Your task to perform on an android device: Clear all items from cart on newegg.com. Image 0: 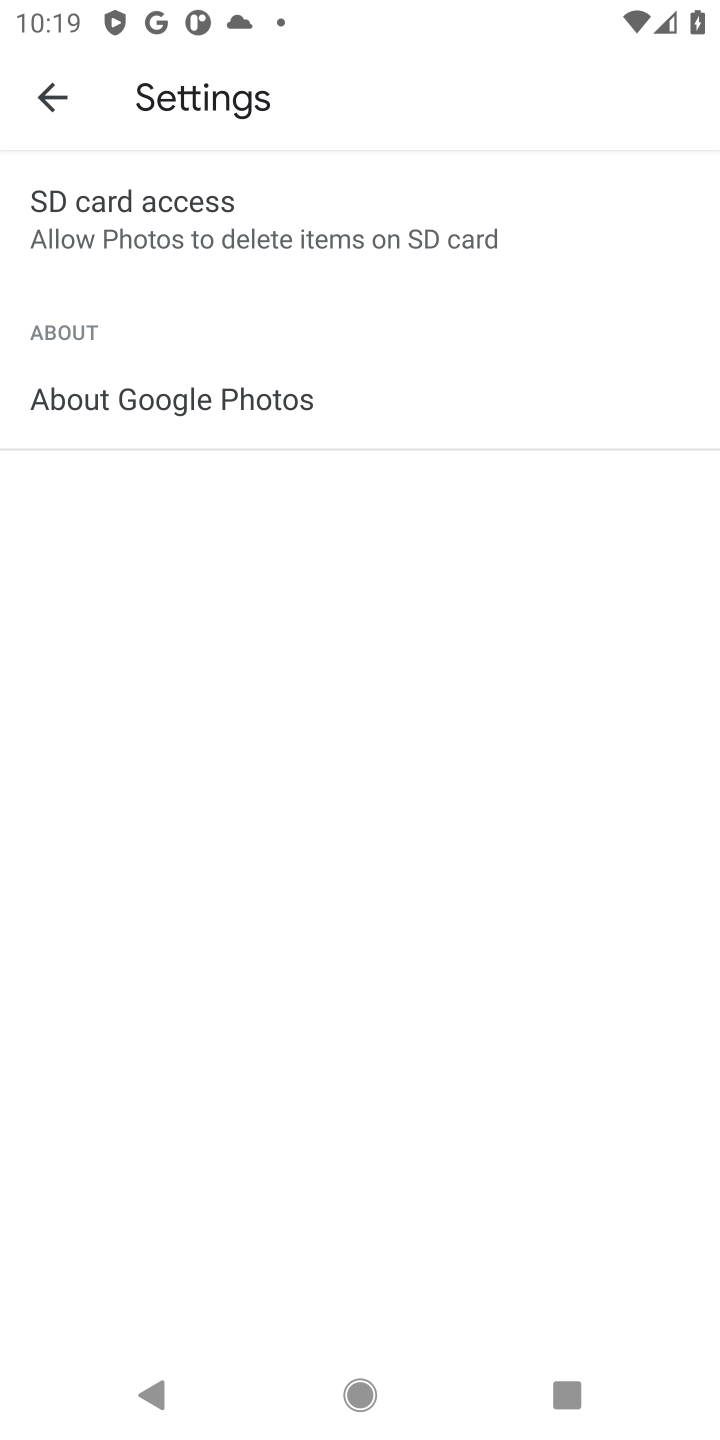
Step 0: press home button
Your task to perform on an android device: Clear all items from cart on newegg.com. Image 1: 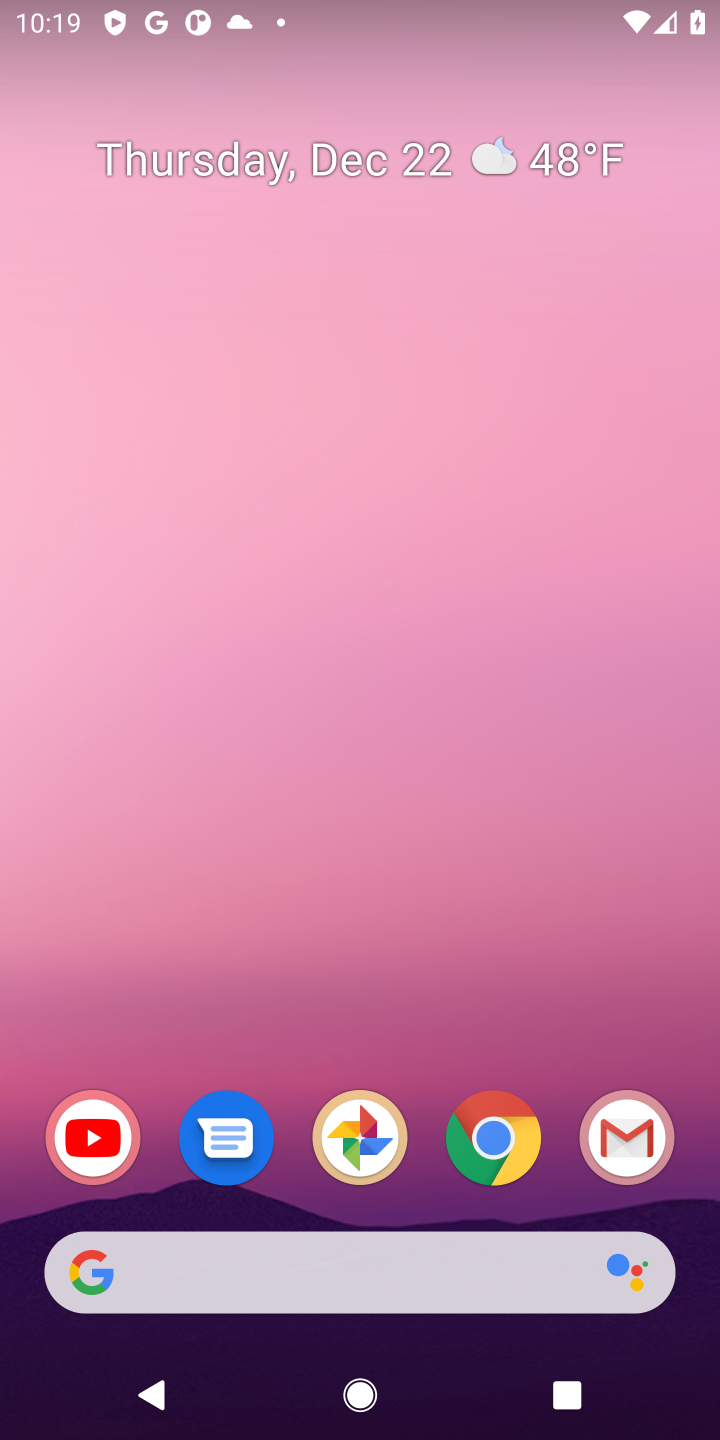
Step 1: click (498, 1128)
Your task to perform on an android device: Clear all items from cart on newegg.com. Image 2: 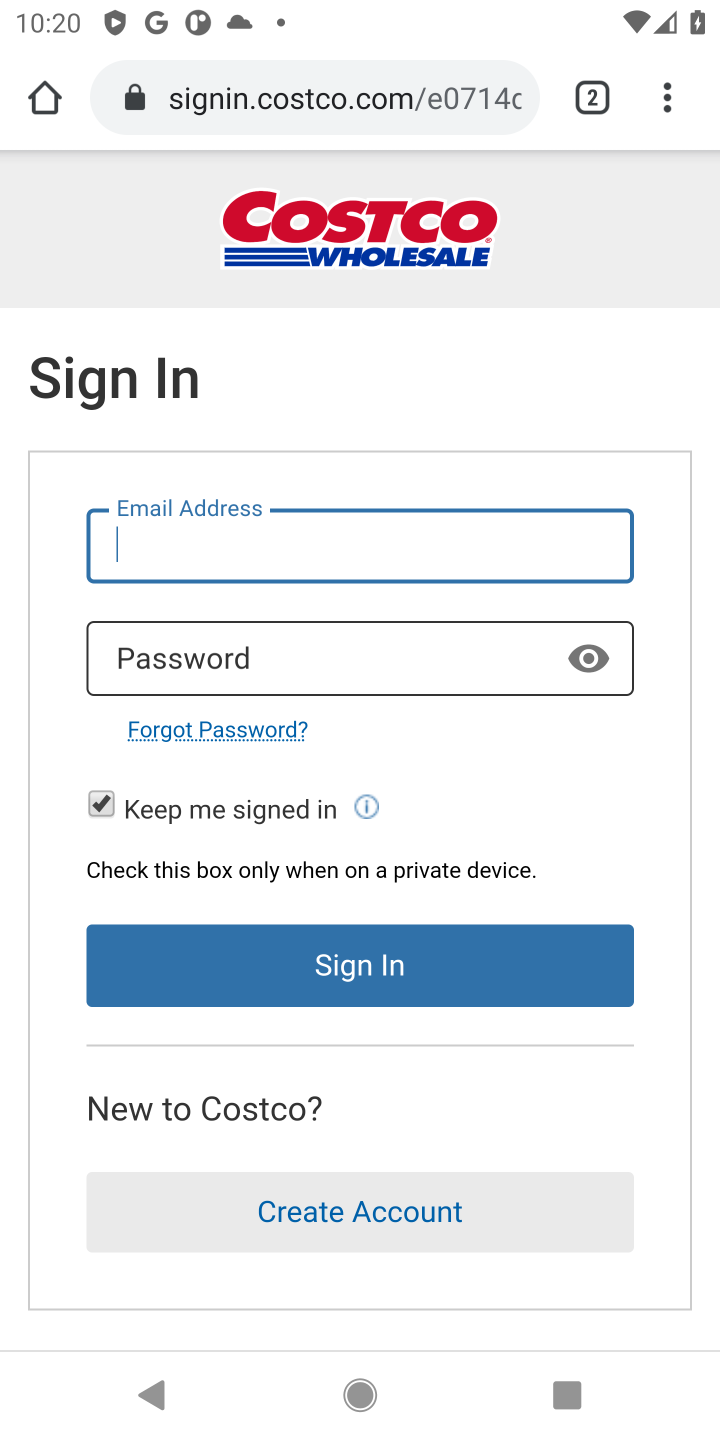
Step 2: click (361, 69)
Your task to perform on an android device: Clear all items from cart on newegg.com. Image 3: 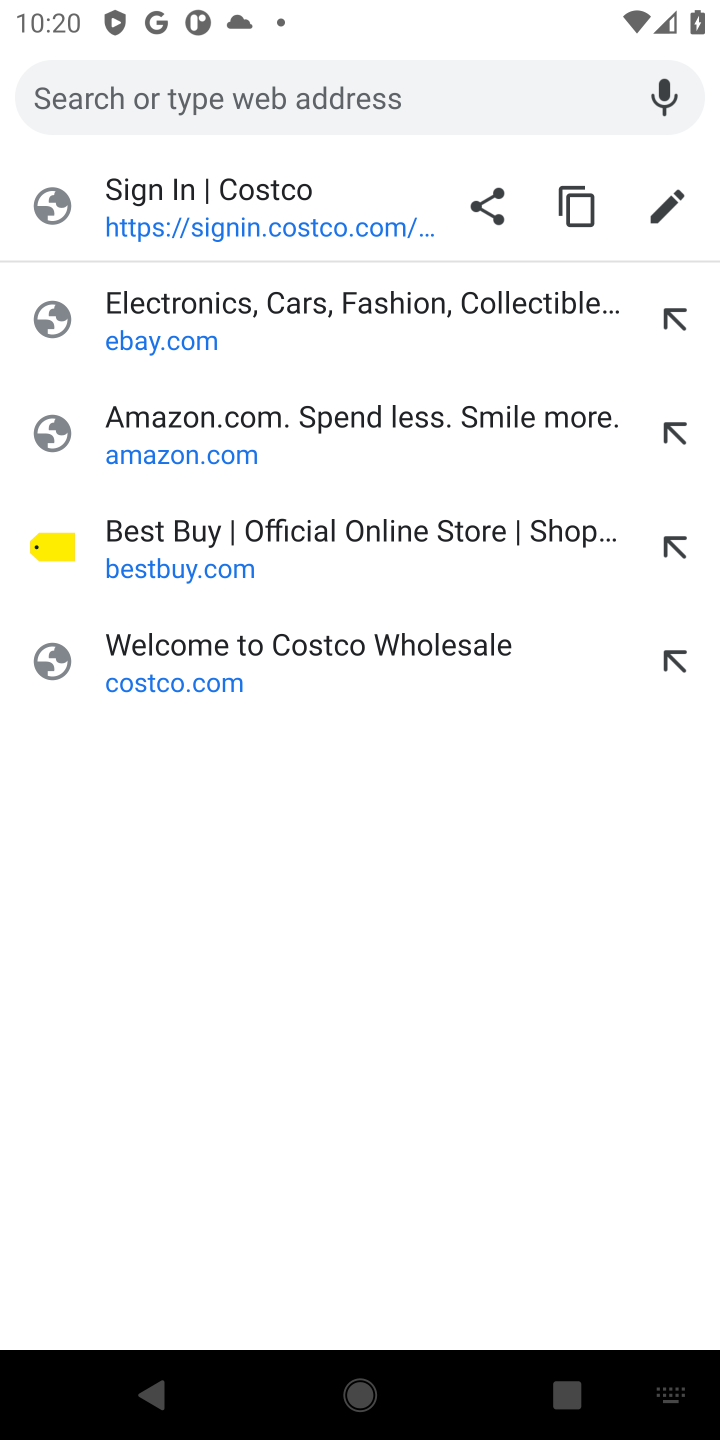
Step 3: type "newegg.com"
Your task to perform on an android device: Clear all items from cart on newegg.com. Image 4: 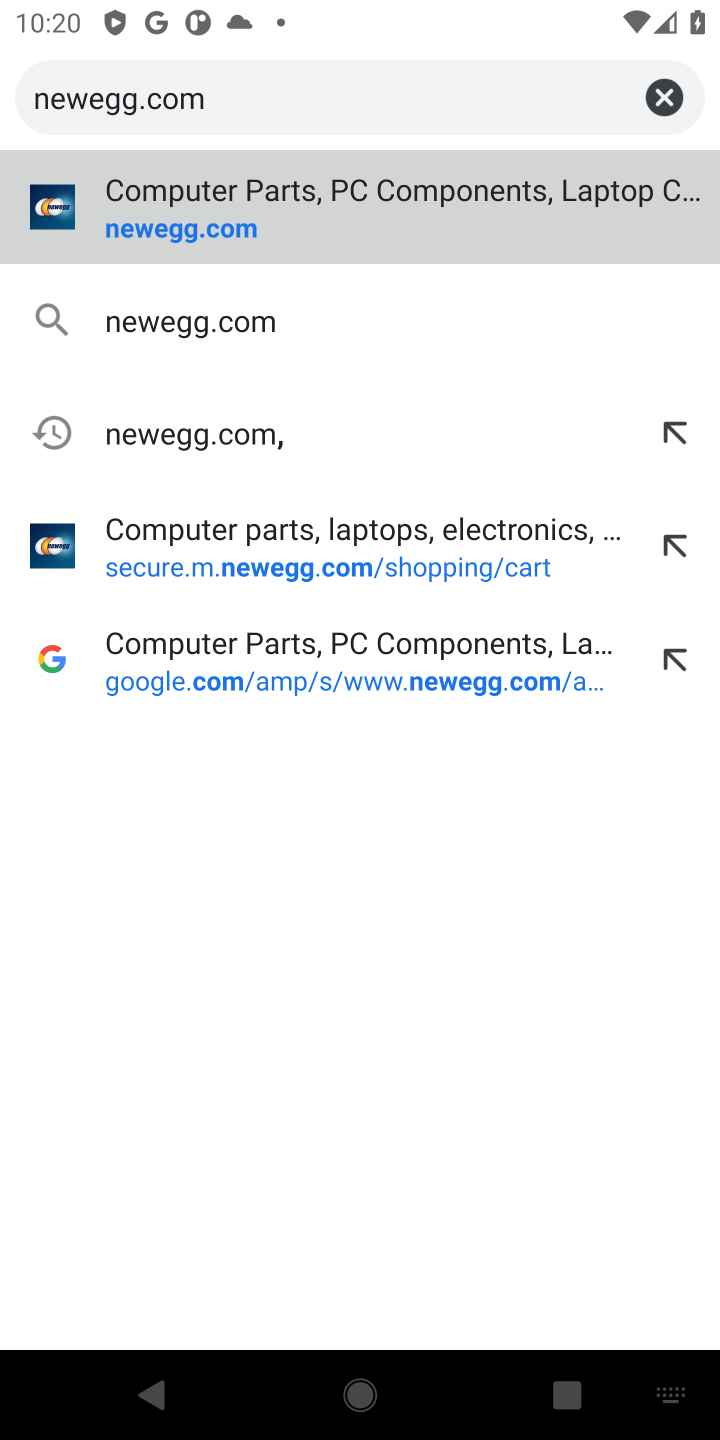
Step 4: press enter
Your task to perform on an android device: Clear all items from cart on newegg.com. Image 5: 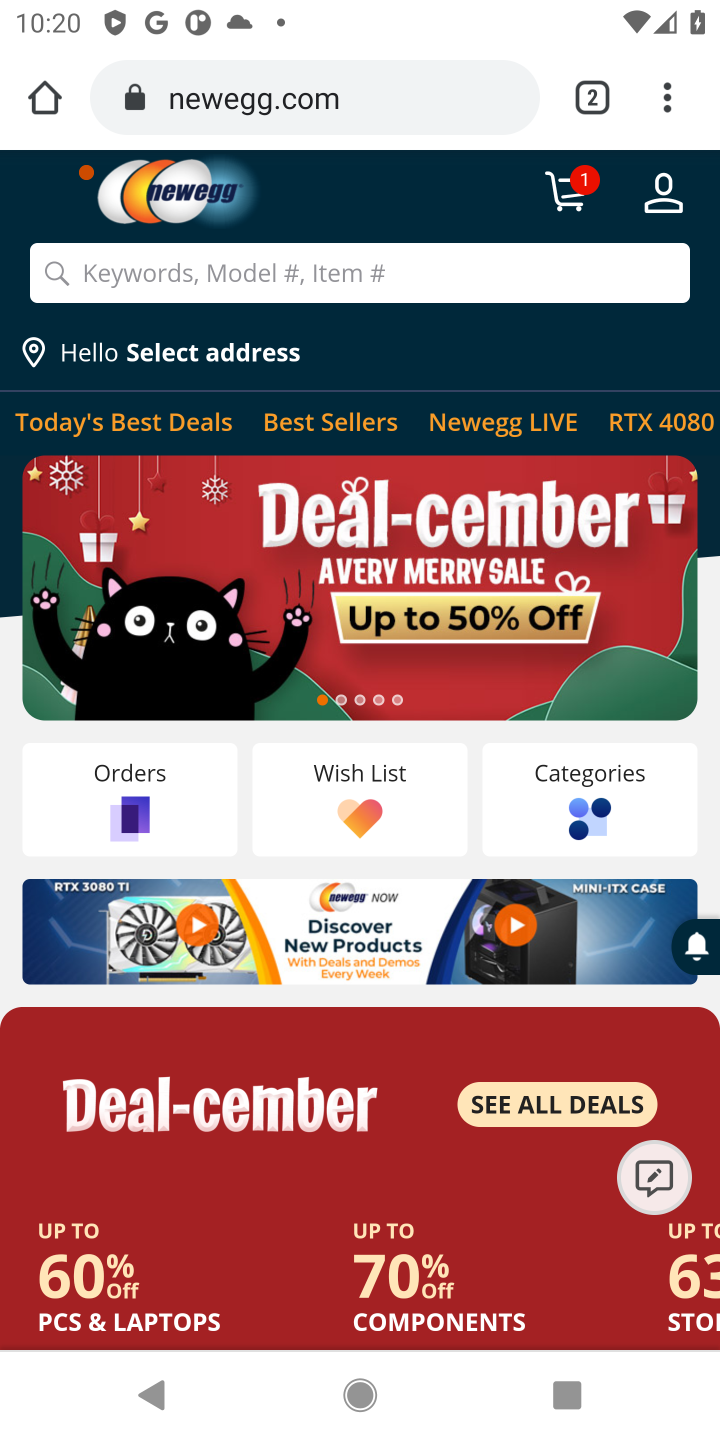
Step 5: click (578, 204)
Your task to perform on an android device: Clear all items from cart on newegg.com. Image 6: 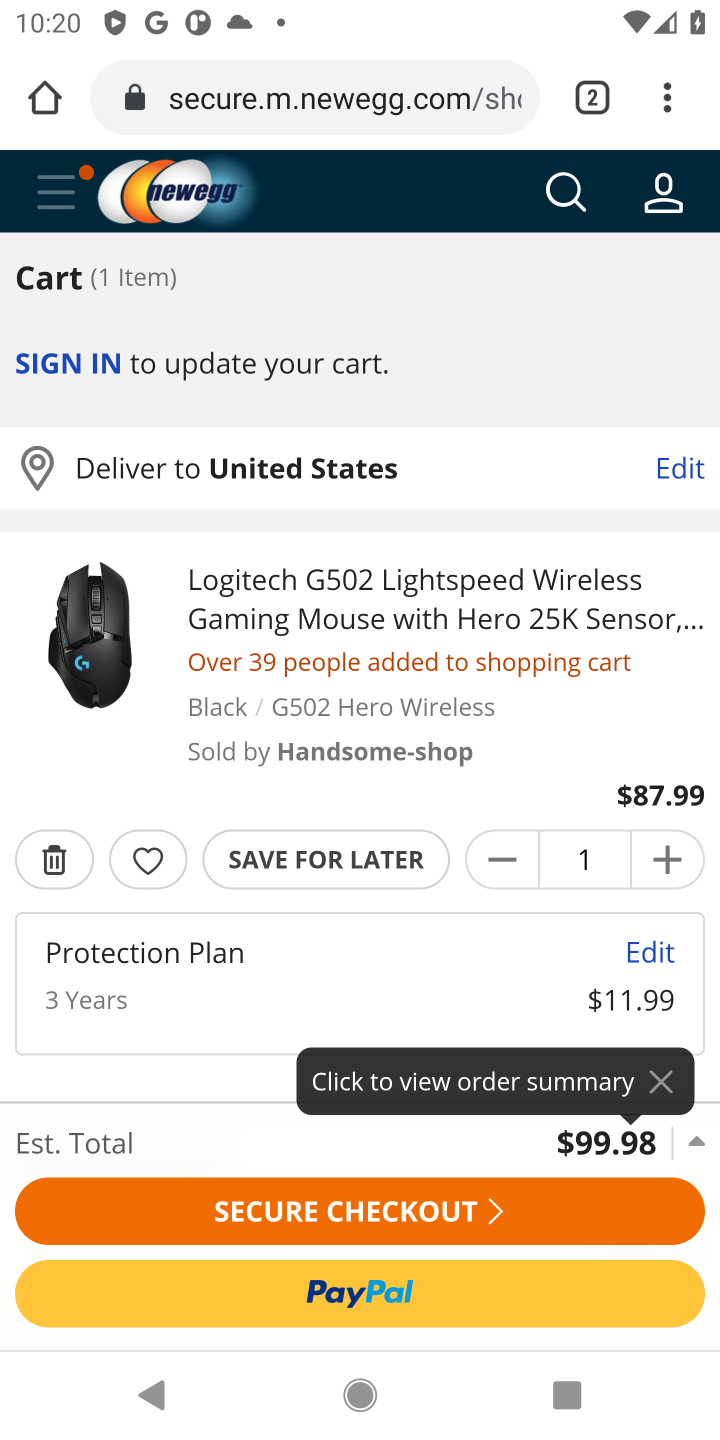
Step 6: click (61, 864)
Your task to perform on an android device: Clear all items from cart on newegg.com. Image 7: 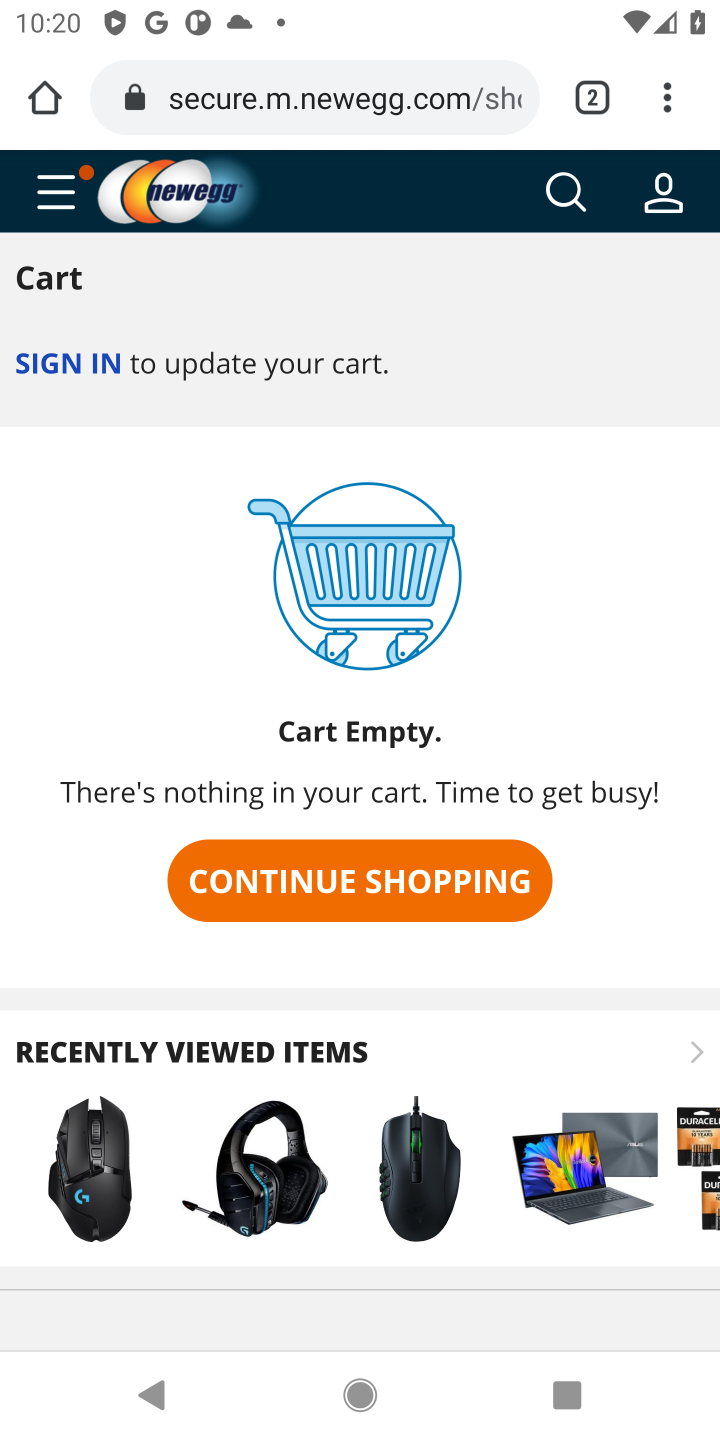
Step 7: task complete